Your task to perform on an android device: Open Google Image 0: 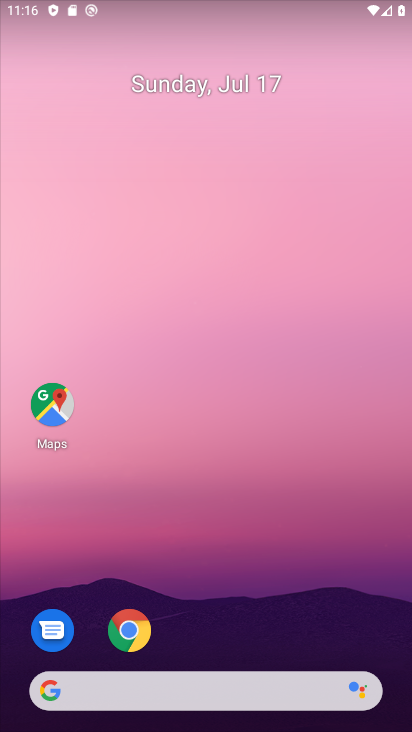
Step 0: click (51, 698)
Your task to perform on an android device: Open Google Image 1: 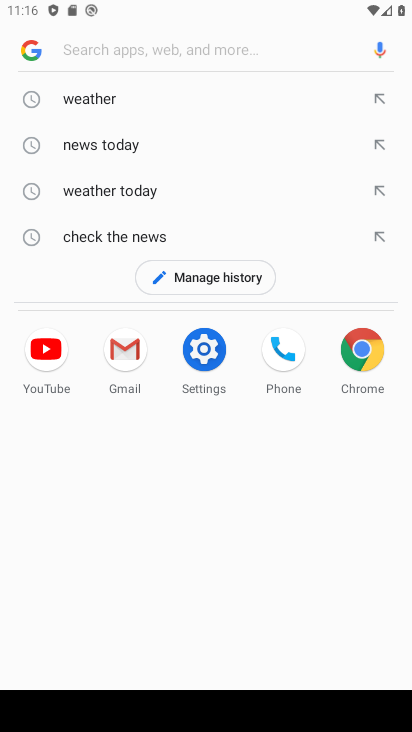
Step 1: click (31, 48)
Your task to perform on an android device: Open Google Image 2: 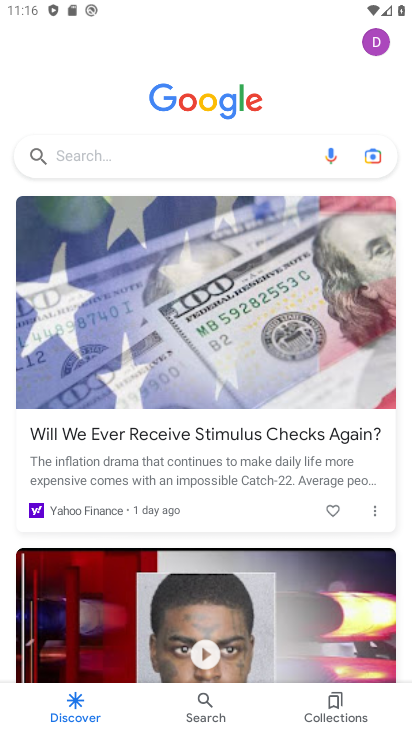
Step 2: task complete